Your task to perform on an android device: toggle notification dots Image 0: 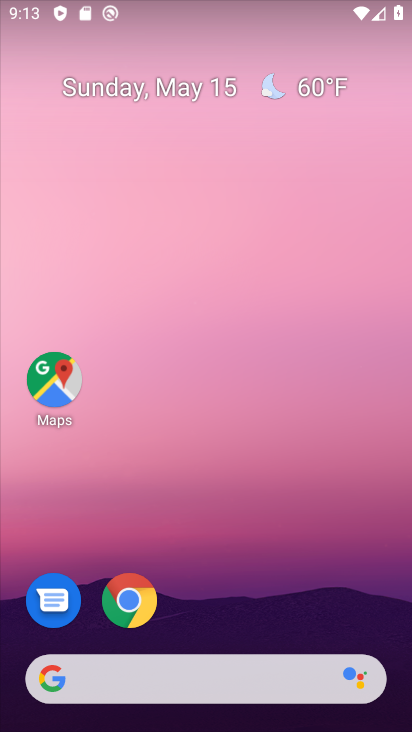
Step 0: drag from (195, 633) to (239, 205)
Your task to perform on an android device: toggle notification dots Image 1: 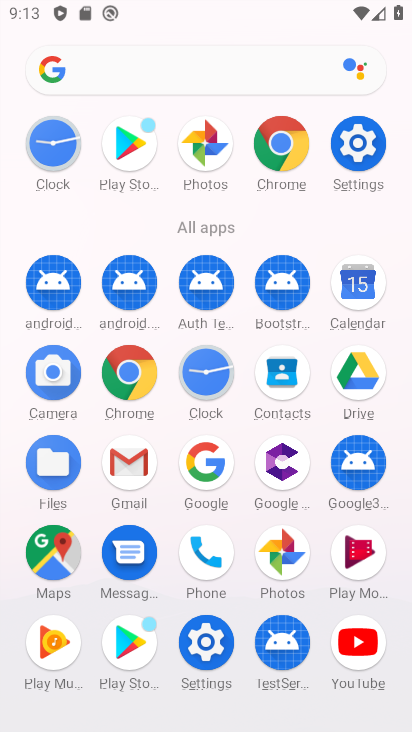
Step 1: click (204, 655)
Your task to perform on an android device: toggle notification dots Image 2: 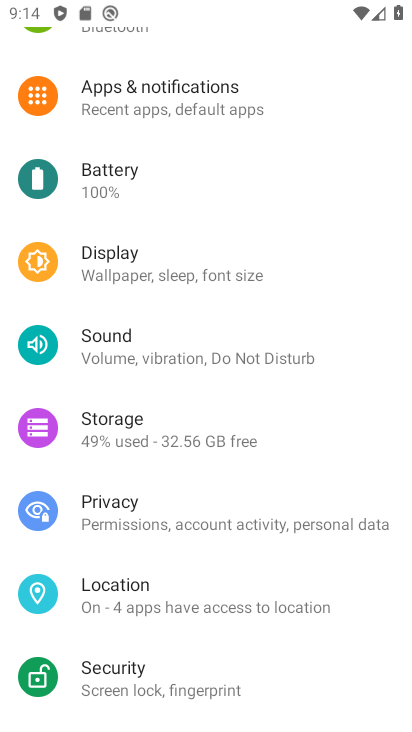
Step 2: drag from (179, 212) to (183, 541)
Your task to perform on an android device: toggle notification dots Image 3: 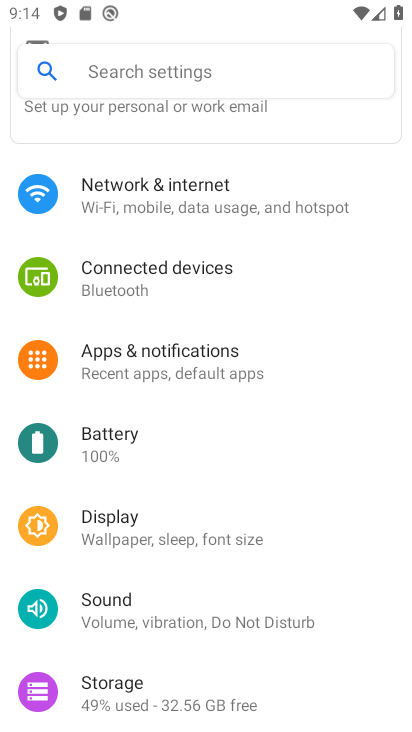
Step 3: click (196, 377)
Your task to perform on an android device: toggle notification dots Image 4: 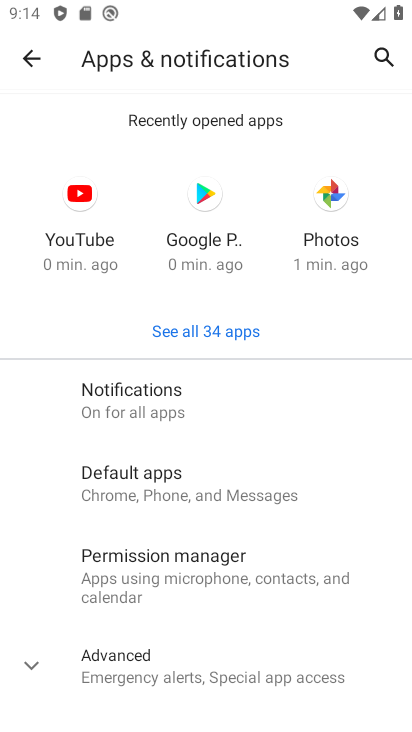
Step 4: drag from (250, 428) to (241, 472)
Your task to perform on an android device: toggle notification dots Image 5: 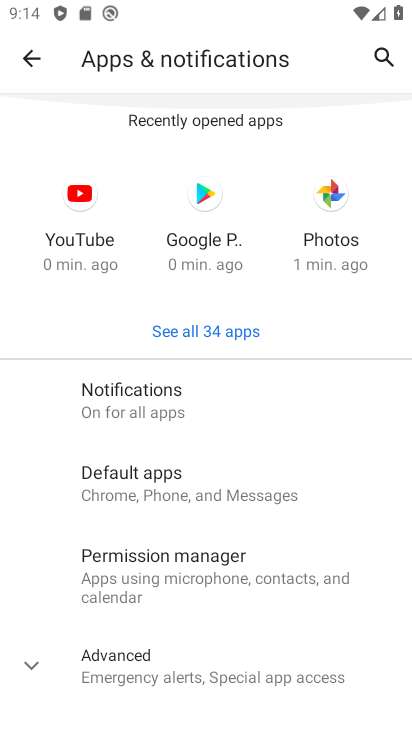
Step 5: click (204, 390)
Your task to perform on an android device: toggle notification dots Image 6: 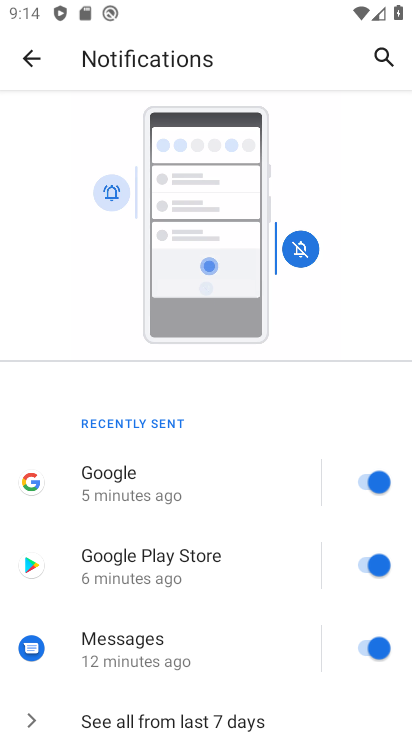
Step 6: drag from (121, 663) to (325, 252)
Your task to perform on an android device: toggle notification dots Image 7: 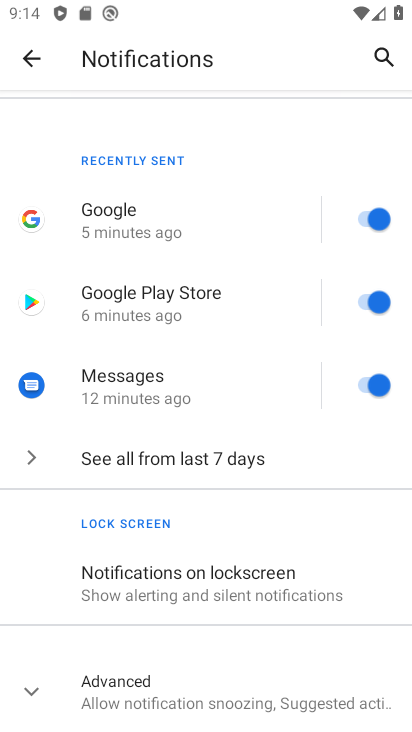
Step 7: click (154, 685)
Your task to perform on an android device: toggle notification dots Image 8: 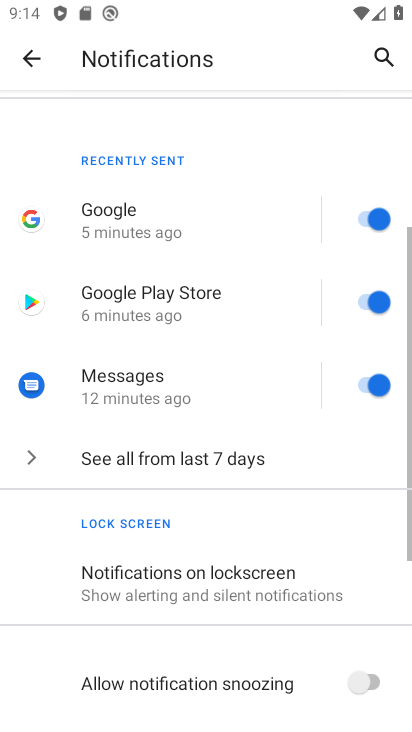
Step 8: drag from (153, 677) to (219, 173)
Your task to perform on an android device: toggle notification dots Image 9: 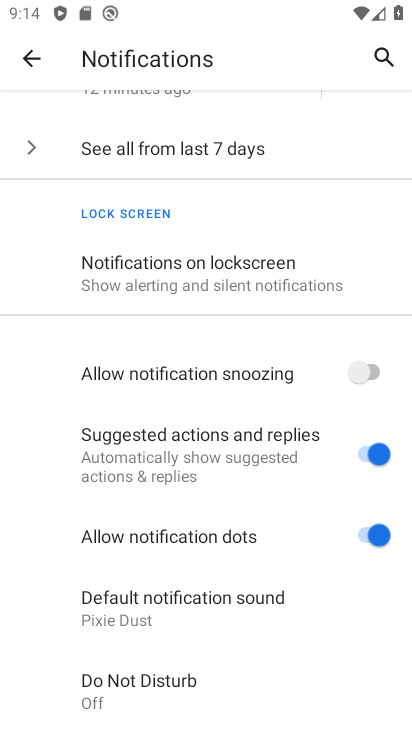
Step 9: click (362, 533)
Your task to perform on an android device: toggle notification dots Image 10: 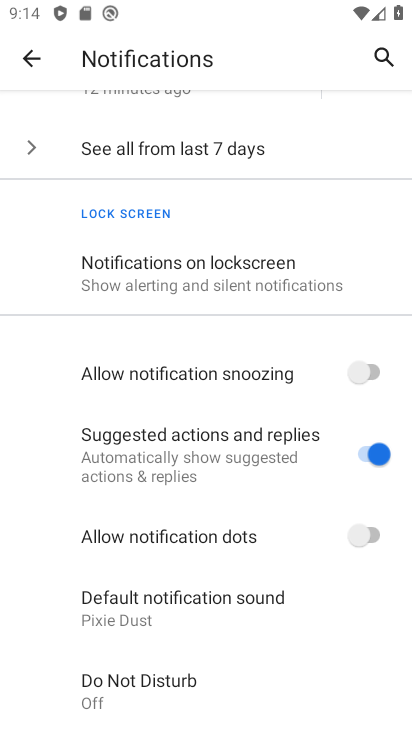
Step 10: task complete